Your task to perform on an android device: open app "Facebook Lite" (install if not already installed) Image 0: 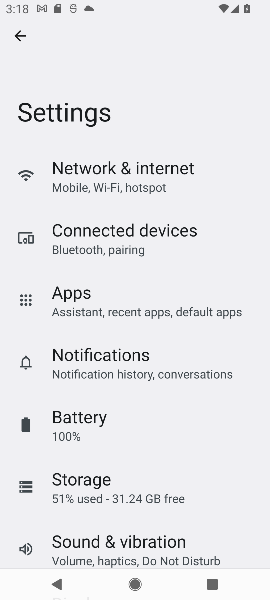
Step 0: press home button
Your task to perform on an android device: open app "Facebook Lite" (install if not already installed) Image 1: 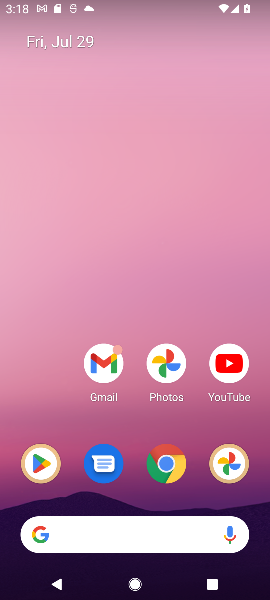
Step 1: drag from (82, 531) to (58, 163)
Your task to perform on an android device: open app "Facebook Lite" (install if not already installed) Image 2: 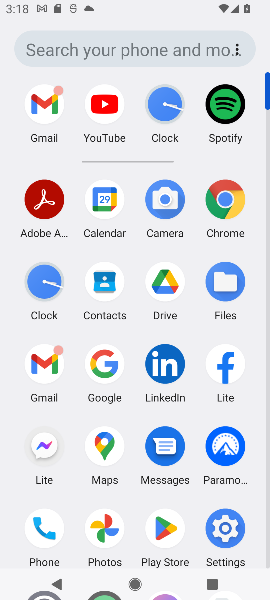
Step 2: click (167, 529)
Your task to perform on an android device: open app "Facebook Lite" (install if not already installed) Image 3: 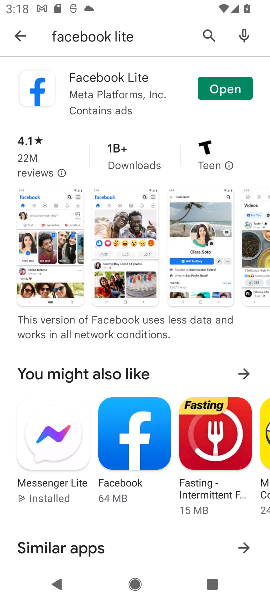
Step 3: click (207, 38)
Your task to perform on an android device: open app "Facebook Lite" (install if not already installed) Image 4: 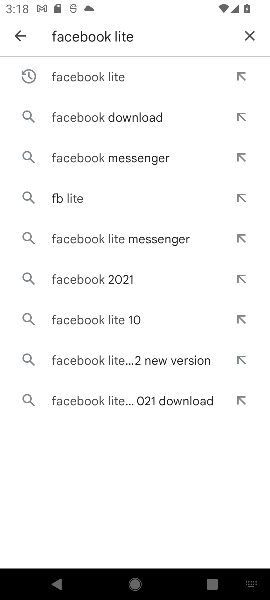
Step 4: click (251, 36)
Your task to perform on an android device: open app "Facebook Lite" (install if not already installed) Image 5: 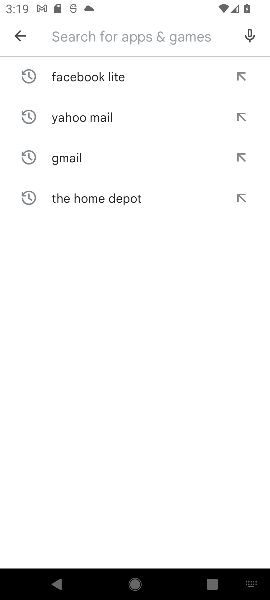
Step 5: type "Facebook Lite"
Your task to perform on an android device: open app "Facebook Lite" (install if not already installed) Image 6: 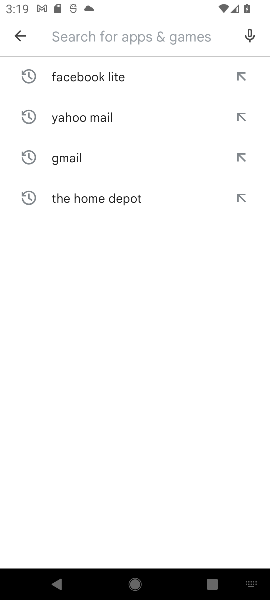
Step 6: click (98, 68)
Your task to perform on an android device: open app "Facebook Lite" (install if not already installed) Image 7: 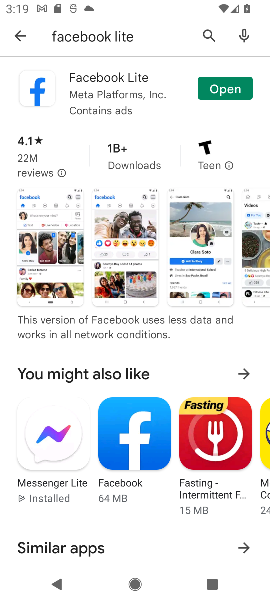
Step 7: click (224, 93)
Your task to perform on an android device: open app "Facebook Lite" (install if not already installed) Image 8: 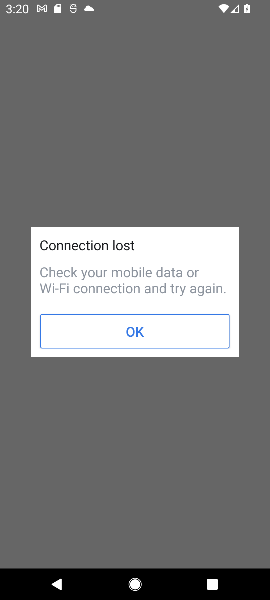
Step 8: task complete